Your task to perform on an android device: choose inbox layout in the gmail app Image 0: 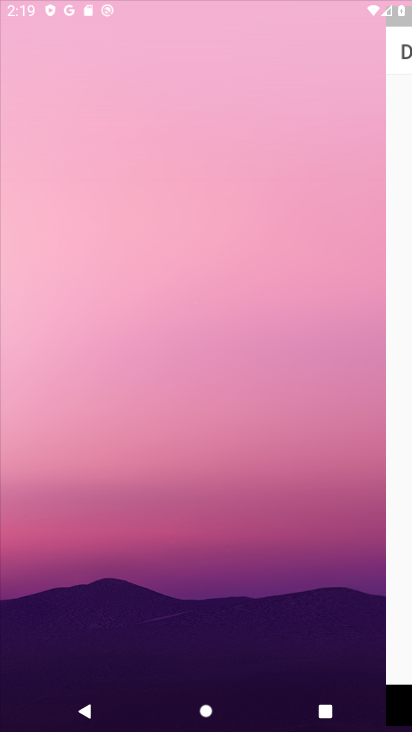
Step 0: press home button
Your task to perform on an android device: choose inbox layout in the gmail app Image 1: 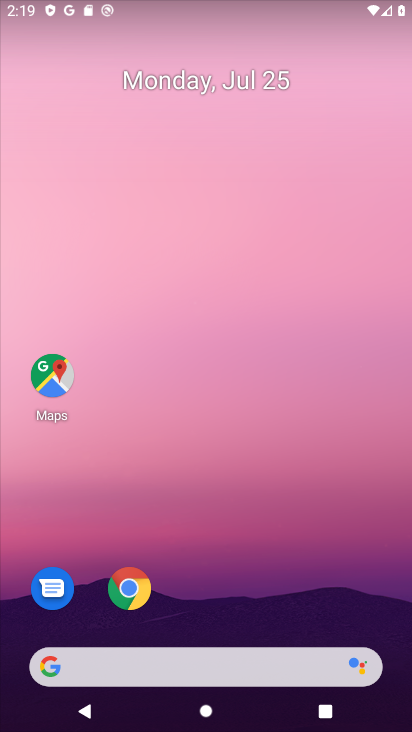
Step 1: drag from (209, 624) to (252, 41)
Your task to perform on an android device: choose inbox layout in the gmail app Image 2: 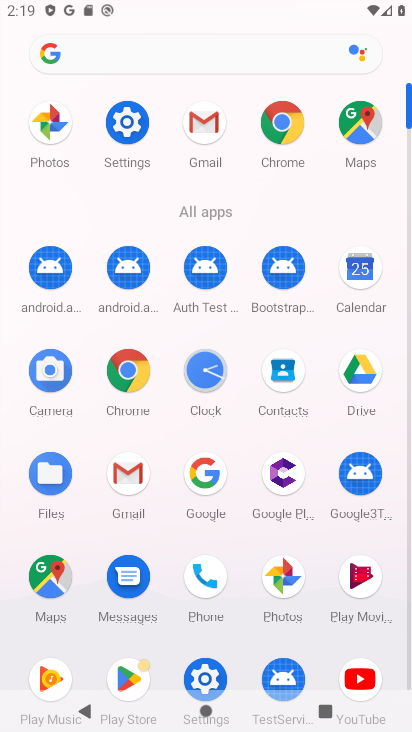
Step 2: click (200, 128)
Your task to perform on an android device: choose inbox layout in the gmail app Image 3: 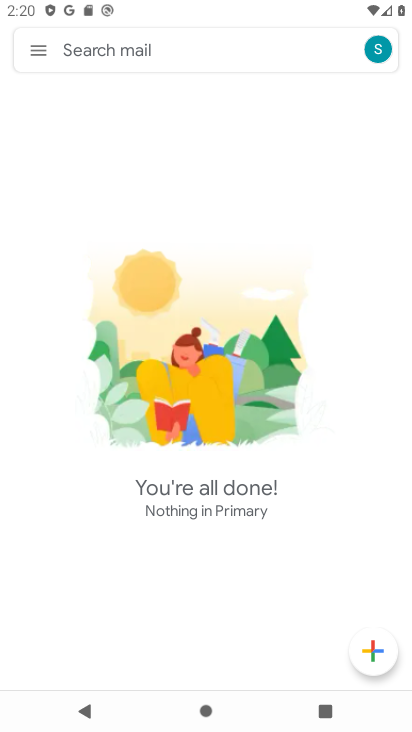
Step 3: click (30, 49)
Your task to perform on an android device: choose inbox layout in the gmail app Image 4: 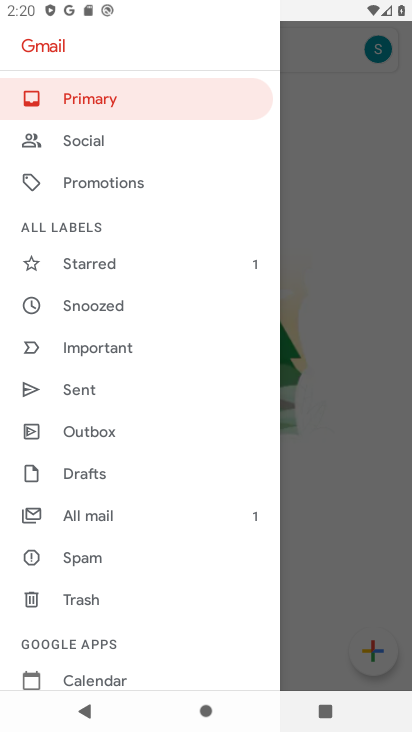
Step 4: drag from (123, 648) to (178, 90)
Your task to perform on an android device: choose inbox layout in the gmail app Image 5: 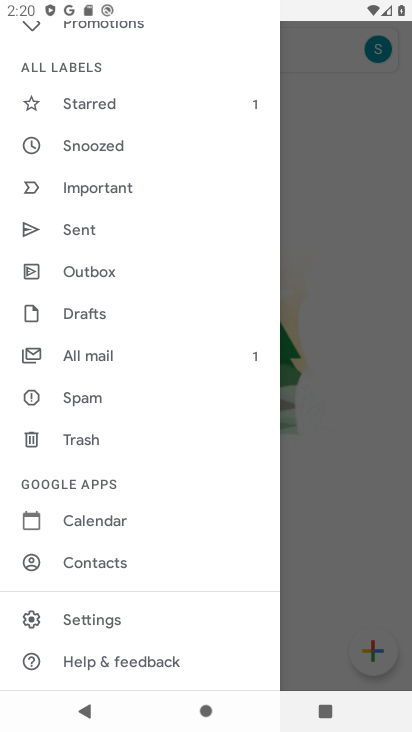
Step 5: drag from (124, 633) to (149, 338)
Your task to perform on an android device: choose inbox layout in the gmail app Image 6: 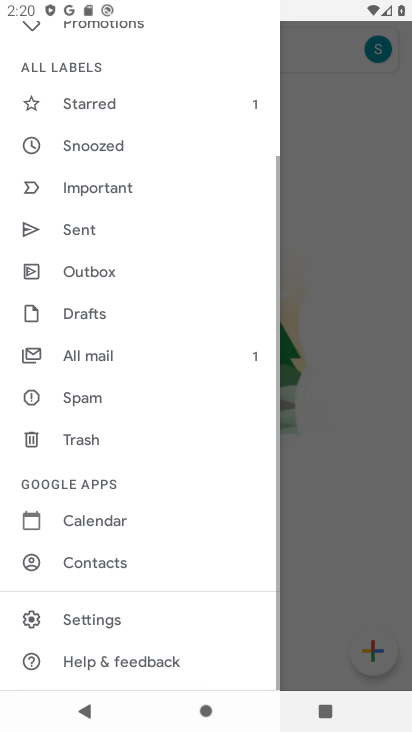
Step 6: click (129, 612)
Your task to perform on an android device: choose inbox layout in the gmail app Image 7: 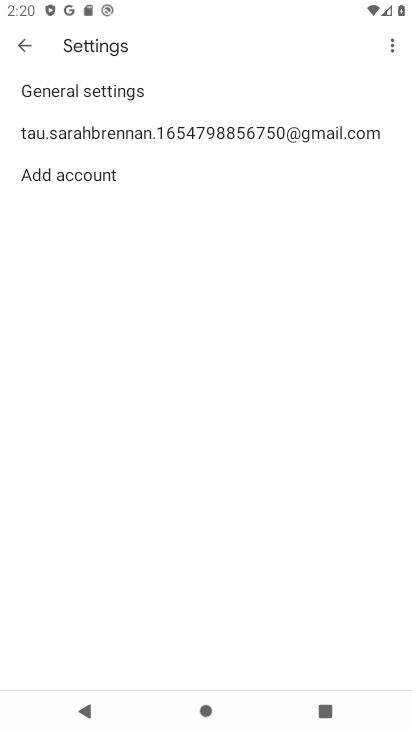
Step 7: click (218, 128)
Your task to perform on an android device: choose inbox layout in the gmail app Image 8: 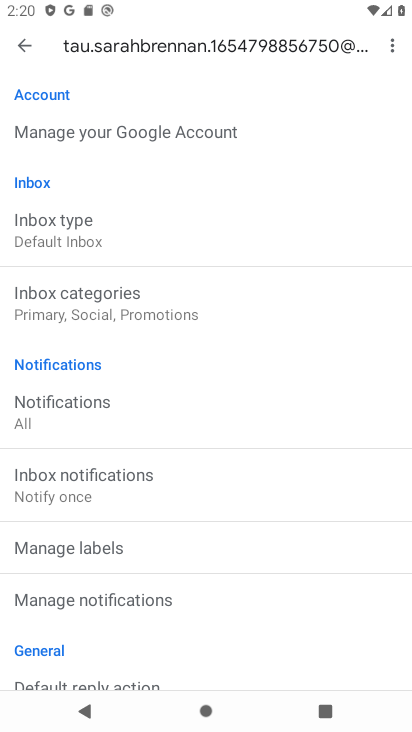
Step 8: click (114, 233)
Your task to perform on an android device: choose inbox layout in the gmail app Image 9: 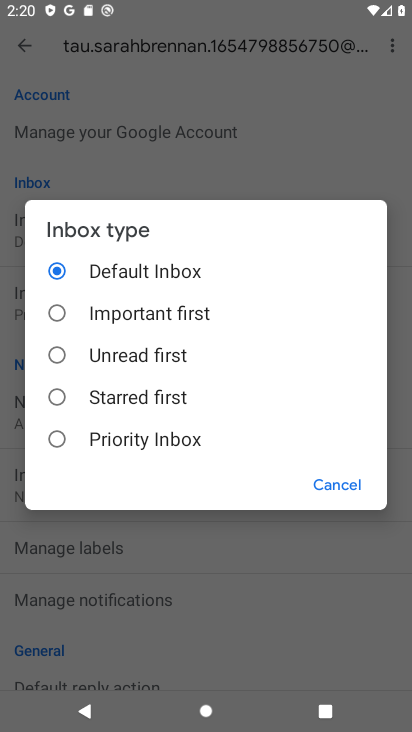
Step 9: click (55, 431)
Your task to perform on an android device: choose inbox layout in the gmail app Image 10: 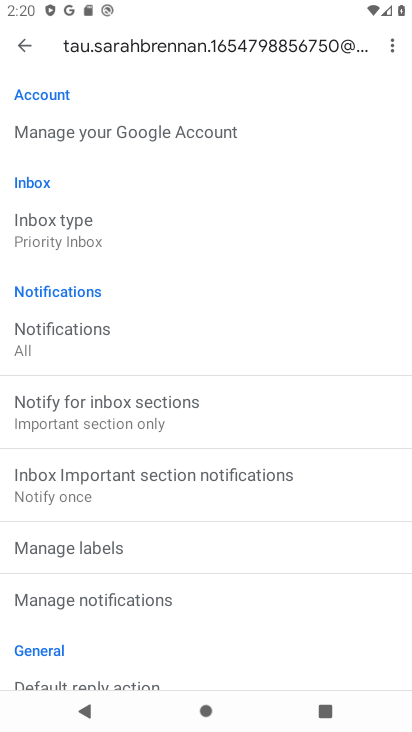
Step 10: task complete